Your task to perform on an android device: check data usage Image 0: 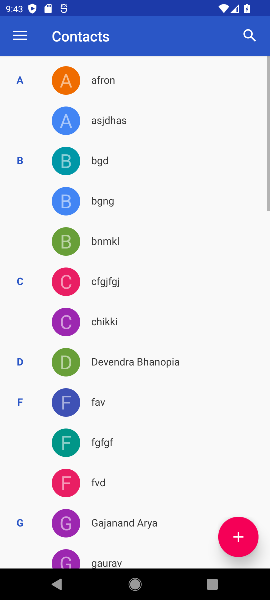
Step 0: press home button
Your task to perform on an android device: check data usage Image 1: 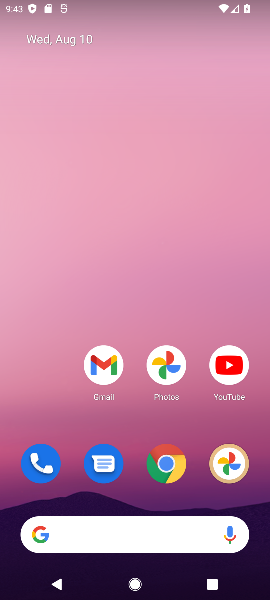
Step 1: drag from (17, 575) to (74, 404)
Your task to perform on an android device: check data usage Image 2: 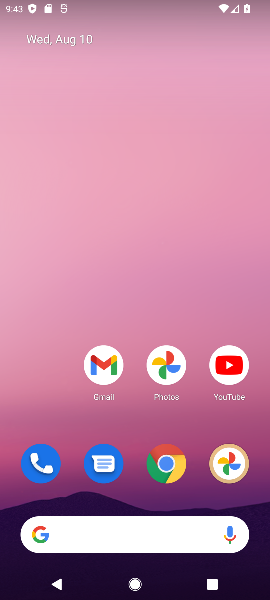
Step 2: drag from (15, 580) to (17, 400)
Your task to perform on an android device: check data usage Image 3: 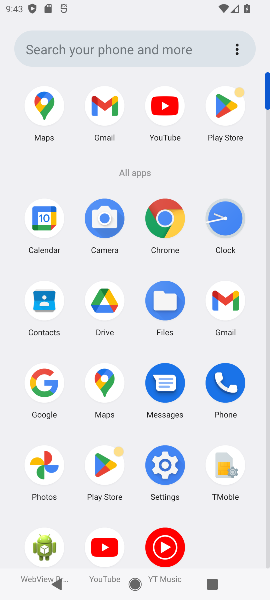
Step 3: click (157, 468)
Your task to perform on an android device: check data usage Image 4: 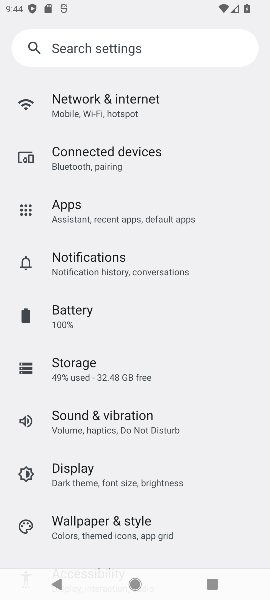
Step 4: click (114, 106)
Your task to perform on an android device: check data usage Image 5: 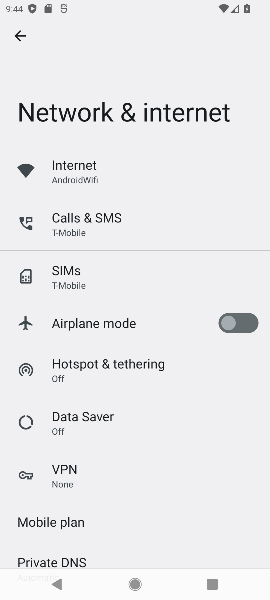
Step 5: click (65, 167)
Your task to perform on an android device: check data usage Image 6: 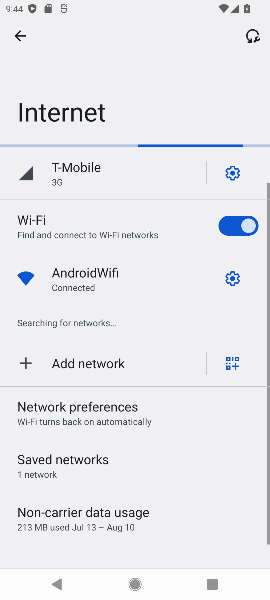
Step 6: click (58, 524)
Your task to perform on an android device: check data usage Image 7: 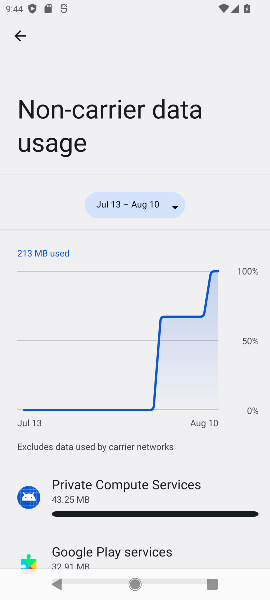
Step 7: task complete